Your task to perform on an android device: Do I have any events tomorrow? Image 0: 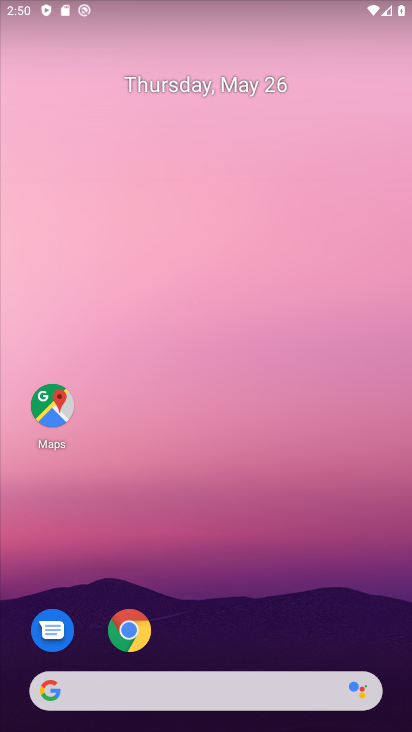
Step 0: drag from (269, 593) to (247, 58)
Your task to perform on an android device: Do I have any events tomorrow? Image 1: 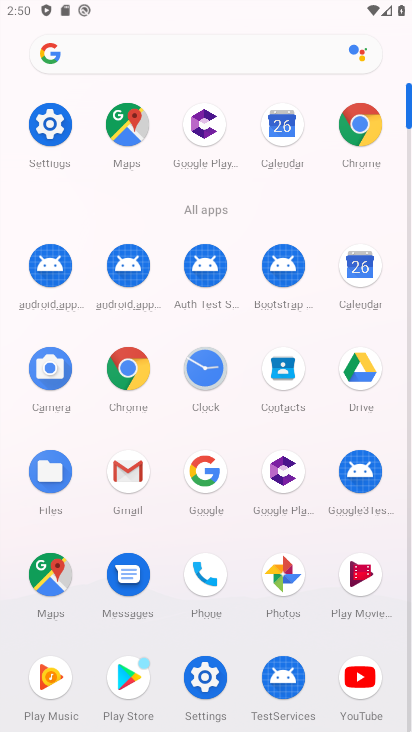
Step 1: click (283, 126)
Your task to perform on an android device: Do I have any events tomorrow? Image 2: 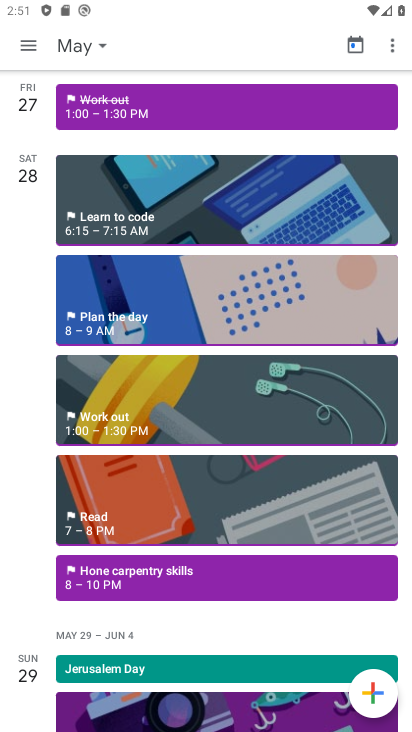
Step 2: click (358, 45)
Your task to perform on an android device: Do I have any events tomorrow? Image 3: 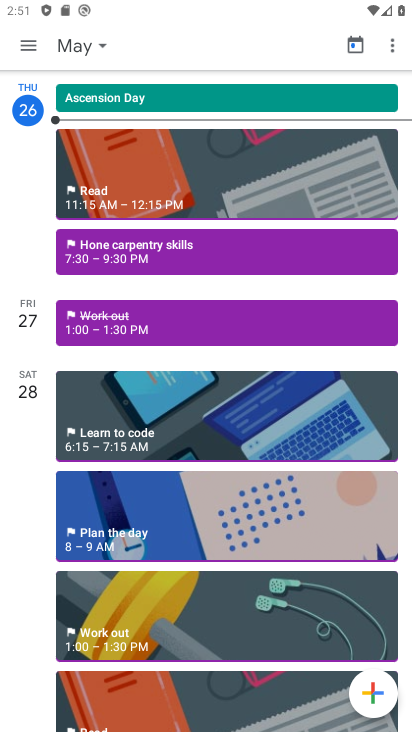
Step 3: click (98, 44)
Your task to perform on an android device: Do I have any events tomorrow? Image 4: 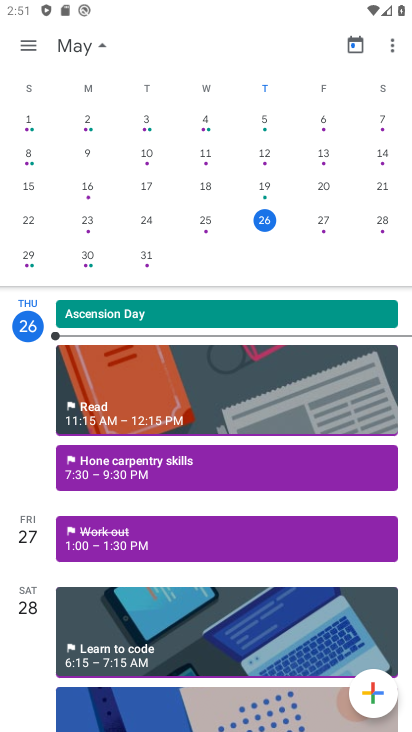
Step 4: click (327, 216)
Your task to perform on an android device: Do I have any events tomorrow? Image 5: 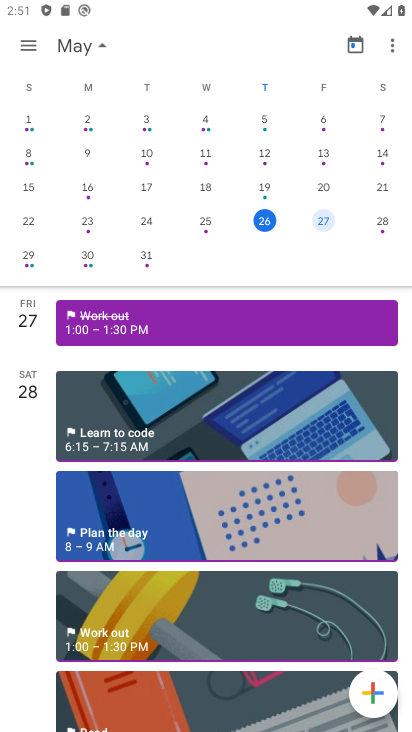
Step 5: click (28, 43)
Your task to perform on an android device: Do I have any events tomorrow? Image 6: 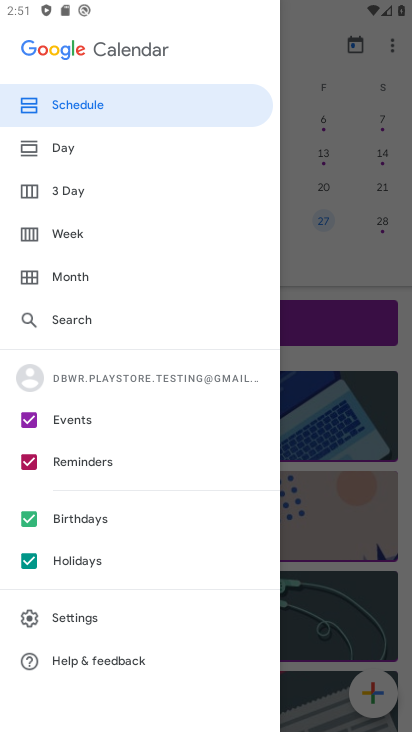
Step 6: click (88, 100)
Your task to perform on an android device: Do I have any events tomorrow? Image 7: 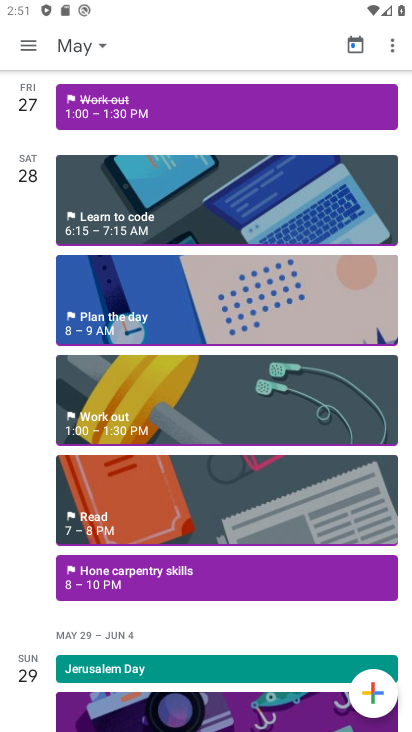
Step 7: task complete